Your task to perform on an android device: What's the weather going to be tomorrow? Image 0: 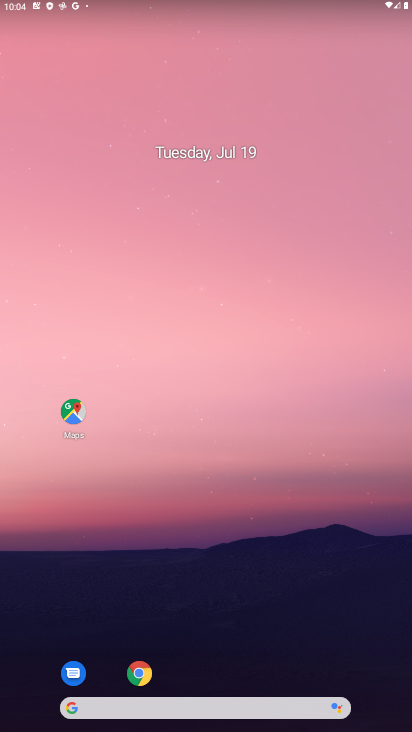
Step 0: press home button
Your task to perform on an android device: What's the weather going to be tomorrow? Image 1: 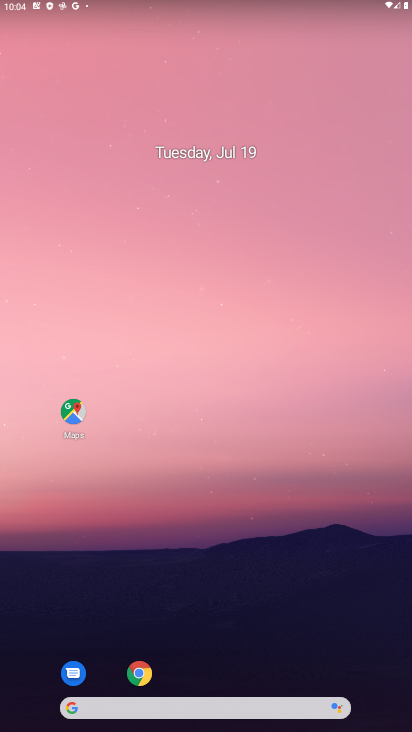
Step 1: click (196, 715)
Your task to perform on an android device: What's the weather going to be tomorrow? Image 2: 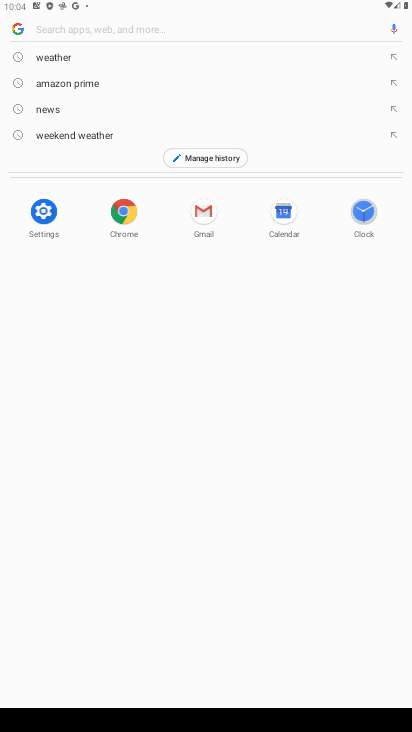
Step 2: click (93, 44)
Your task to perform on an android device: What's the weather going to be tomorrow? Image 3: 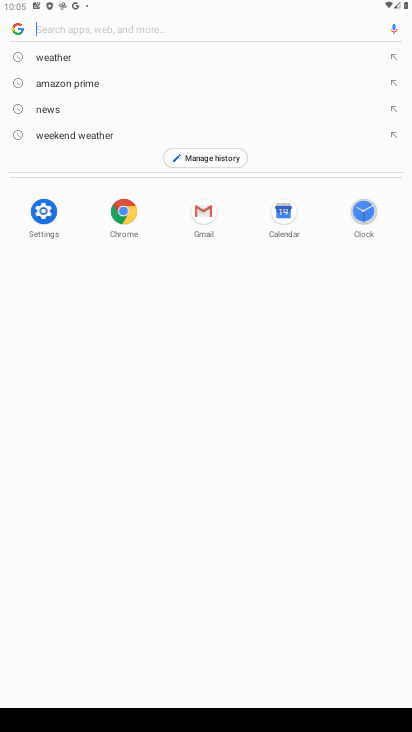
Step 3: click (66, 43)
Your task to perform on an android device: What's the weather going to be tomorrow? Image 4: 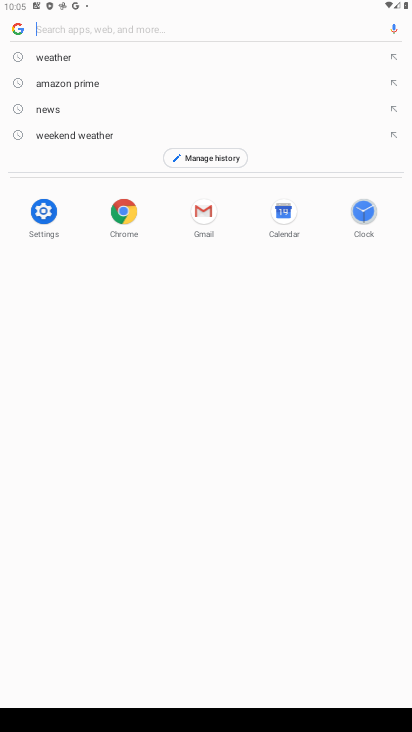
Step 4: click (67, 64)
Your task to perform on an android device: What's the weather going to be tomorrow? Image 5: 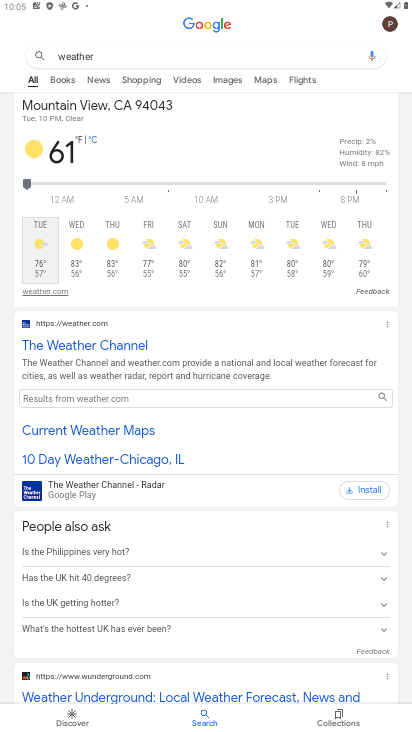
Step 5: task complete